Your task to perform on an android device: Open the Play Movies app and select the watchlist tab. Image 0: 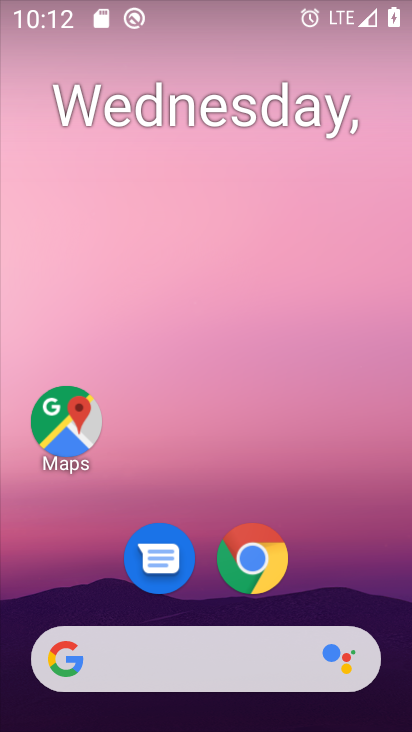
Step 0: drag from (366, 585) to (379, 118)
Your task to perform on an android device: Open the Play Movies app and select the watchlist tab. Image 1: 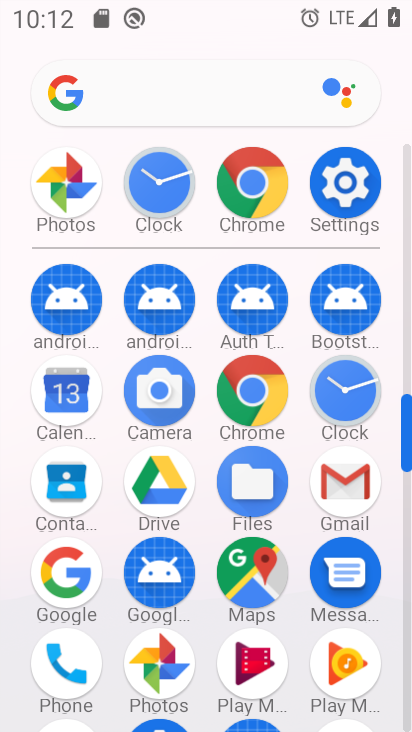
Step 1: click (259, 658)
Your task to perform on an android device: Open the Play Movies app and select the watchlist tab. Image 2: 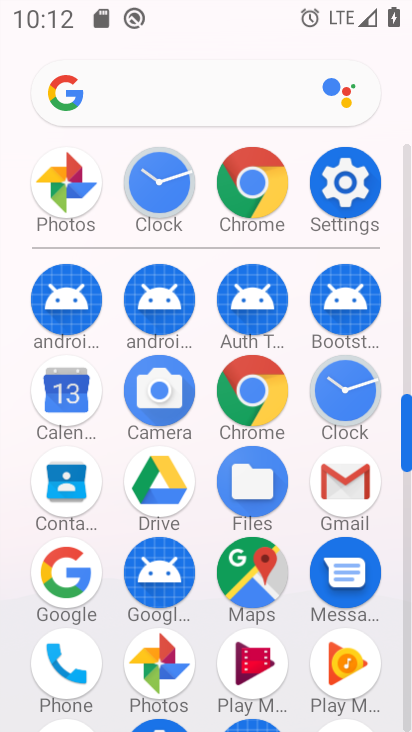
Step 2: click (253, 662)
Your task to perform on an android device: Open the Play Movies app and select the watchlist tab. Image 3: 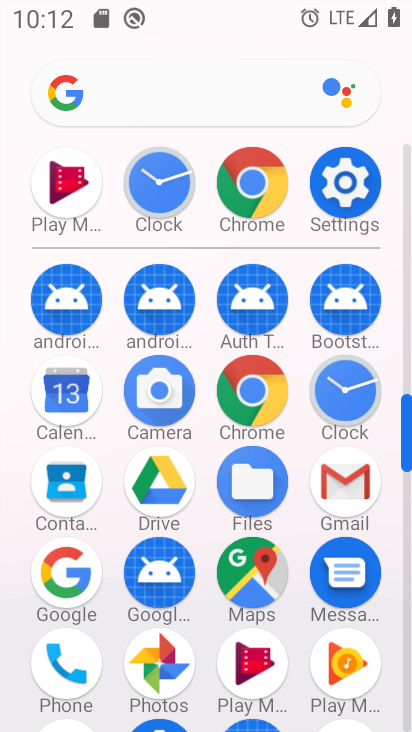
Step 3: task complete